Your task to perform on an android device: show emergency info Image 0: 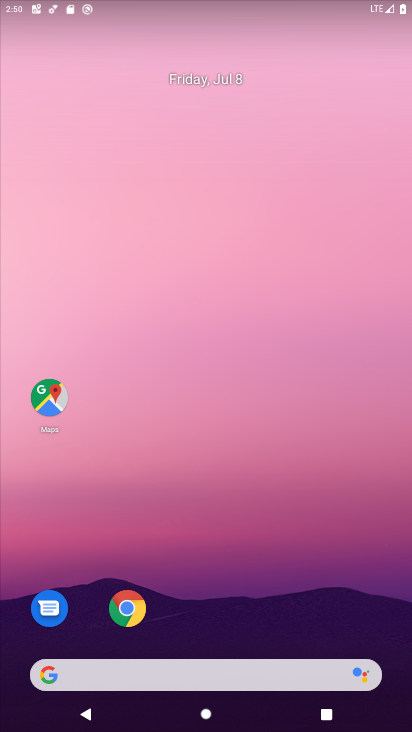
Step 0: drag from (199, 599) to (235, 193)
Your task to perform on an android device: show emergency info Image 1: 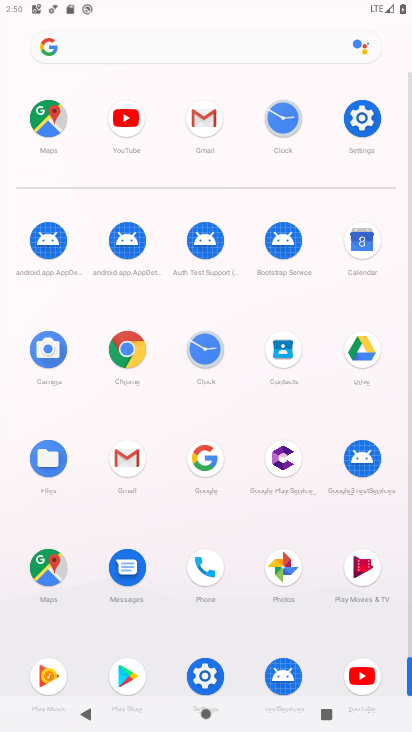
Step 1: click (375, 116)
Your task to perform on an android device: show emergency info Image 2: 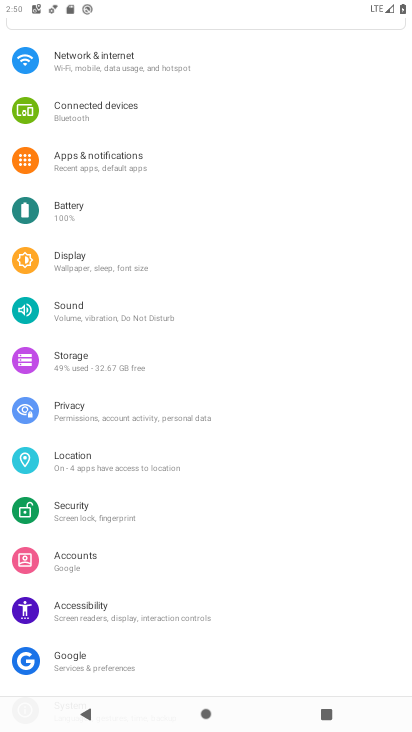
Step 2: drag from (150, 636) to (207, 226)
Your task to perform on an android device: show emergency info Image 3: 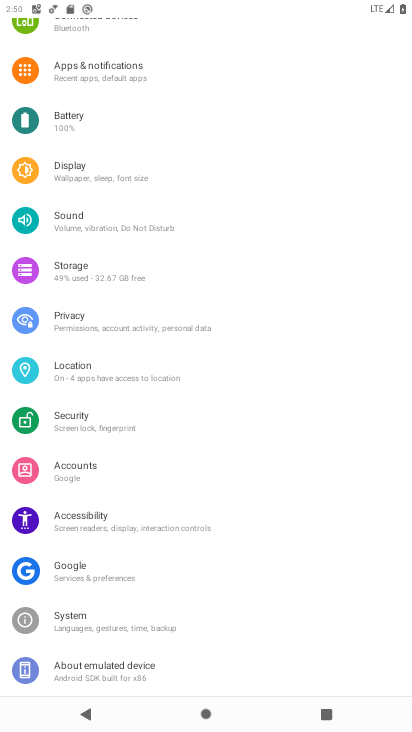
Step 3: click (136, 661)
Your task to perform on an android device: show emergency info Image 4: 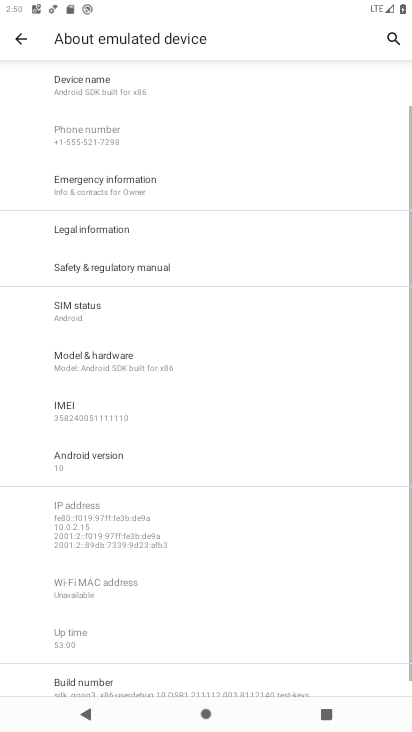
Step 4: click (108, 173)
Your task to perform on an android device: show emergency info Image 5: 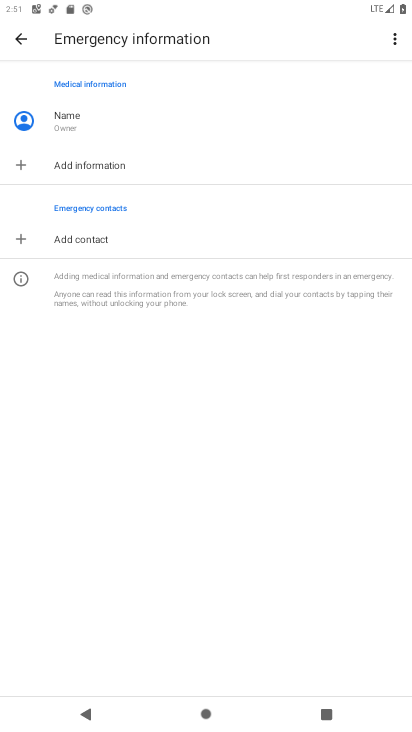
Step 5: task complete